Your task to perform on an android device: Turn off the flashlight Image 0: 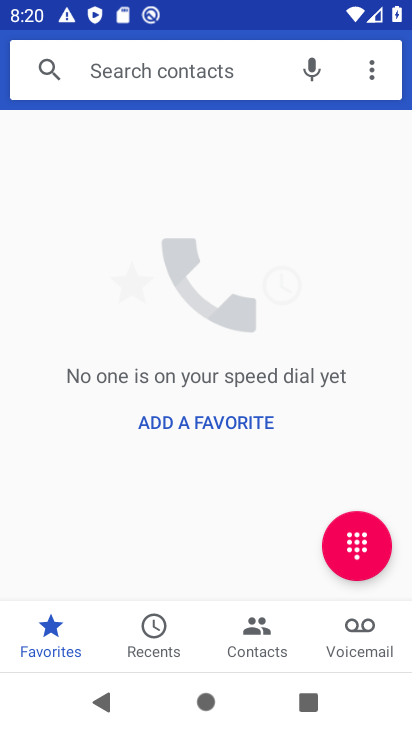
Step 0: press home button
Your task to perform on an android device: Turn off the flashlight Image 1: 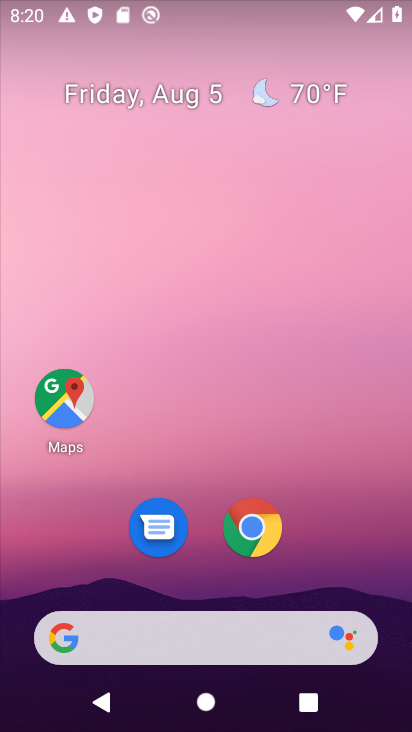
Step 1: task complete